Your task to perform on an android device: Open Maps and search for coffee Image 0: 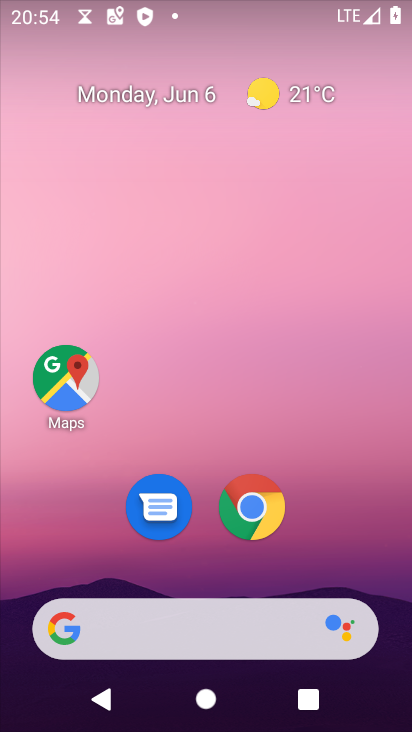
Step 0: drag from (216, 560) to (230, 18)
Your task to perform on an android device: Open Maps and search for coffee Image 1: 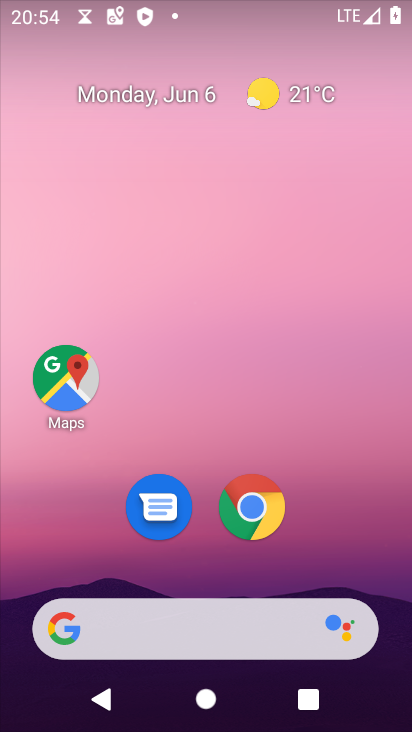
Step 1: drag from (202, 580) to (219, 86)
Your task to perform on an android device: Open Maps and search for coffee Image 2: 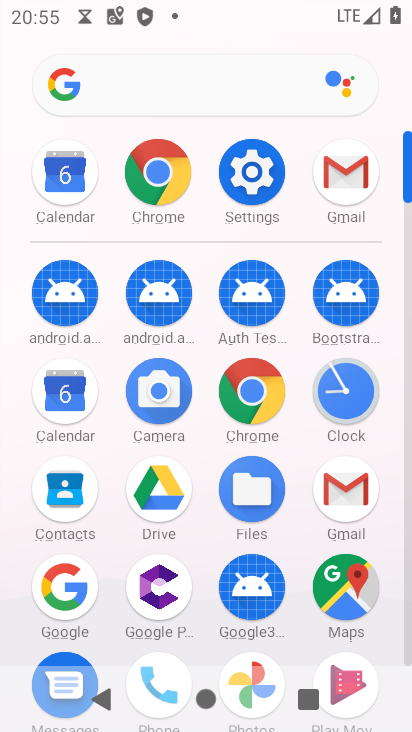
Step 2: drag from (187, 614) to (255, 184)
Your task to perform on an android device: Open Maps and search for coffee Image 3: 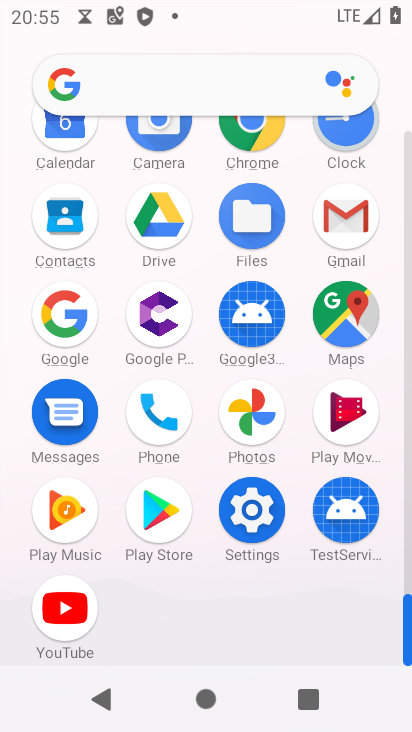
Step 3: click (353, 307)
Your task to perform on an android device: Open Maps and search for coffee Image 4: 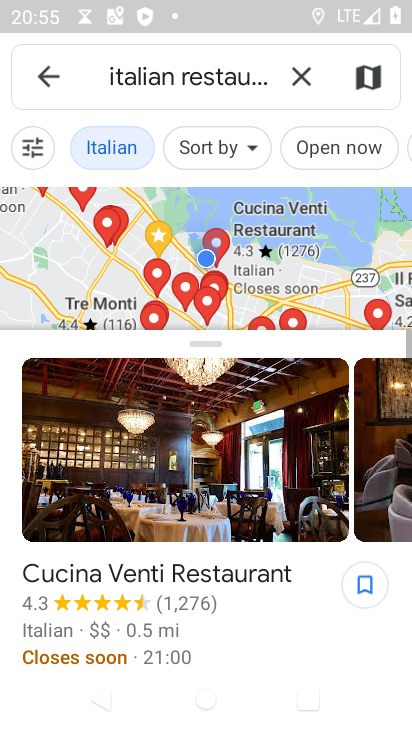
Step 4: task complete